Your task to perform on an android device: choose inbox layout in the gmail app Image 0: 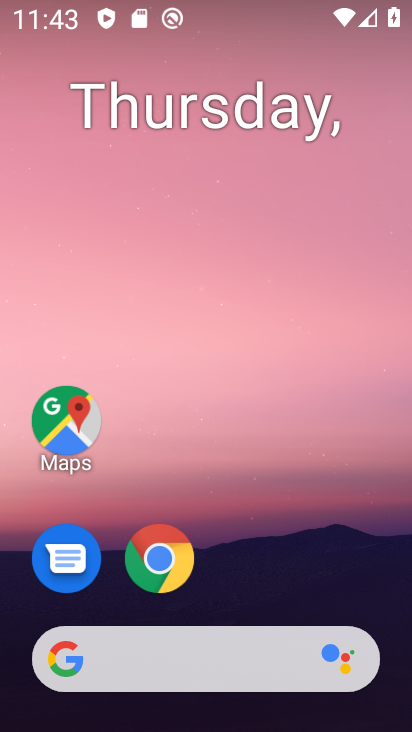
Step 0: drag from (376, 568) to (378, 180)
Your task to perform on an android device: choose inbox layout in the gmail app Image 1: 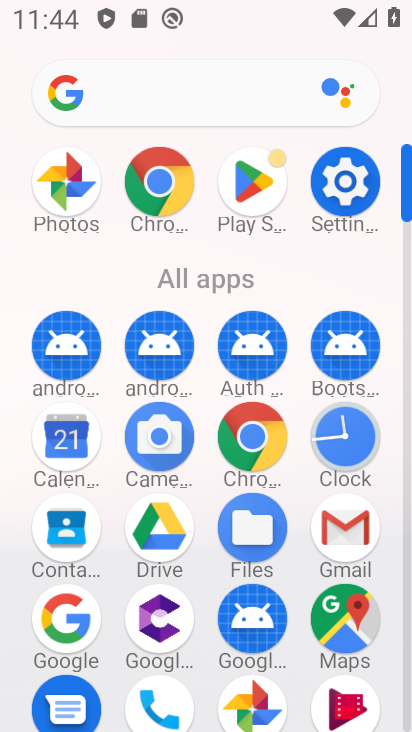
Step 1: click (341, 530)
Your task to perform on an android device: choose inbox layout in the gmail app Image 2: 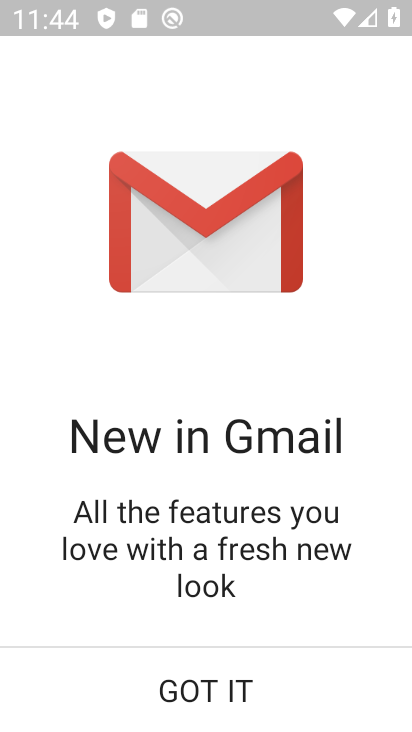
Step 2: click (229, 678)
Your task to perform on an android device: choose inbox layout in the gmail app Image 3: 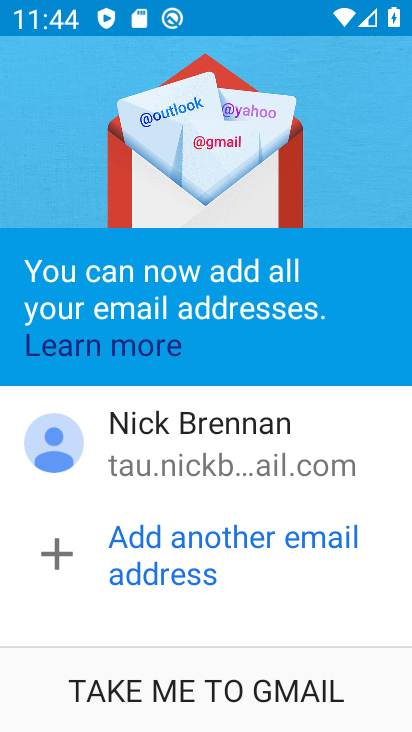
Step 3: click (229, 678)
Your task to perform on an android device: choose inbox layout in the gmail app Image 4: 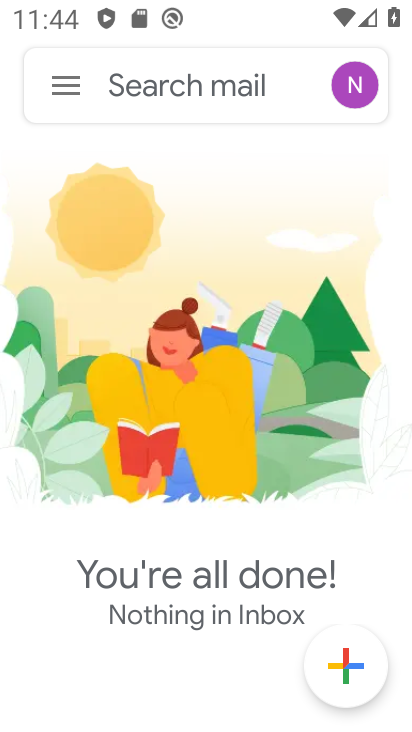
Step 4: click (66, 92)
Your task to perform on an android device: choose inbox layout in the gmail app Image 5: 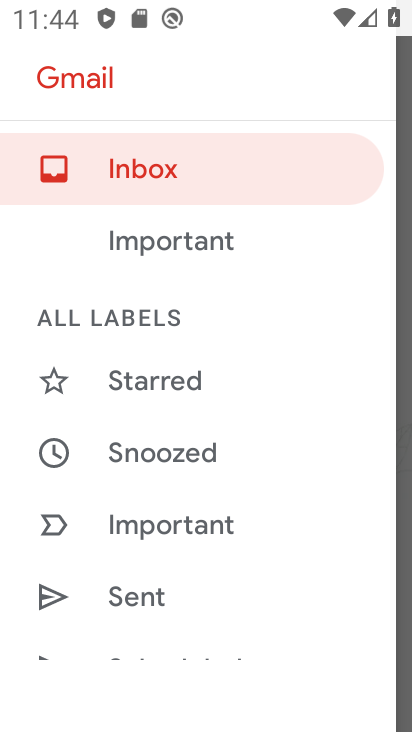
Step 5: drag from (269, 400) to (282, 348)
Your task to perform on an android device: choose inbox layout in the gmail app Image 6: 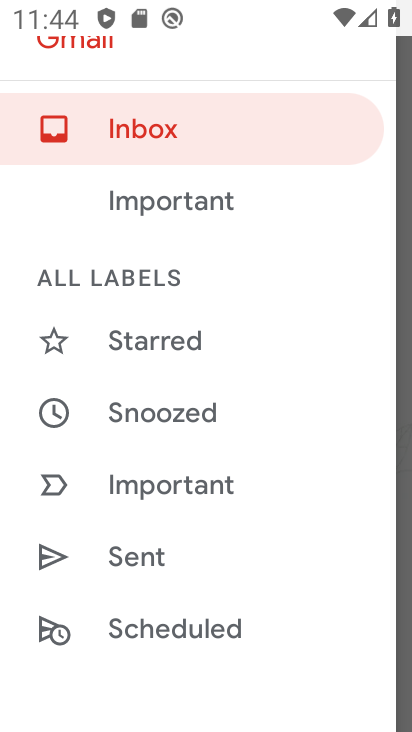
Step 6: drag from (290, 429) to (301, 361)
Your task to perform on an android device: choose inbox layout in the gmail app Image 7: 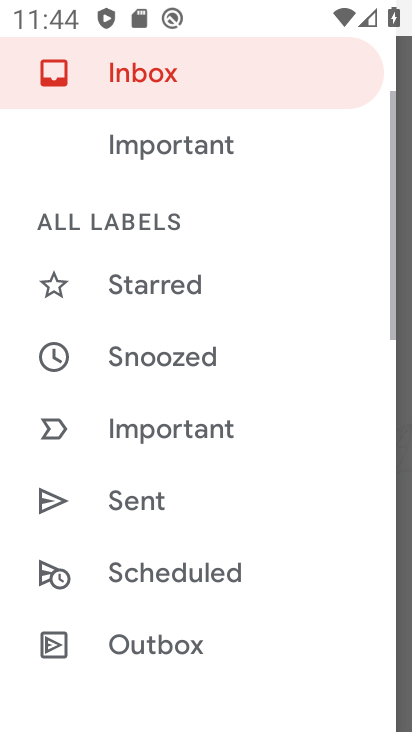
Step 7: drag from (306, 445) to (306, 369)
Your task to perform on an android device: choose inbox layout in the gmail app Image 8: 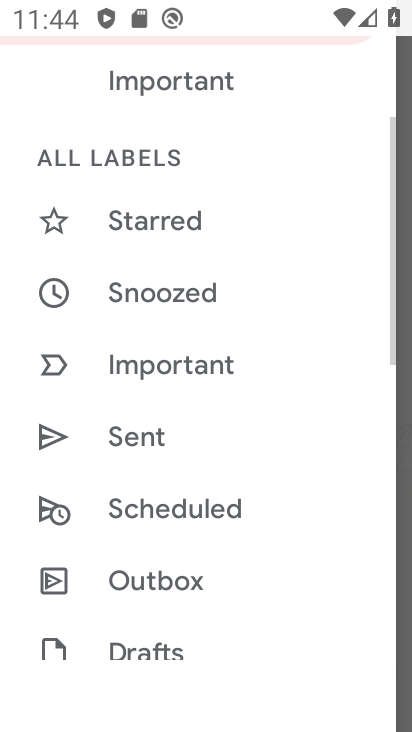
Step 8: drag from (291, 459) to (292, 386)
Your task to perform on an android device: choose inbox layout in the gmail app Image 9: 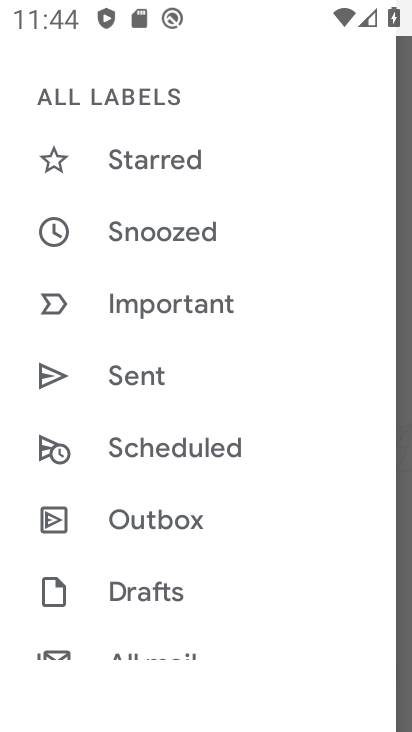
Step 9: drag from (291, 489) to (303, 412)
Your task to perform on an android device: choose inbox layout in the gmail app Image 10: 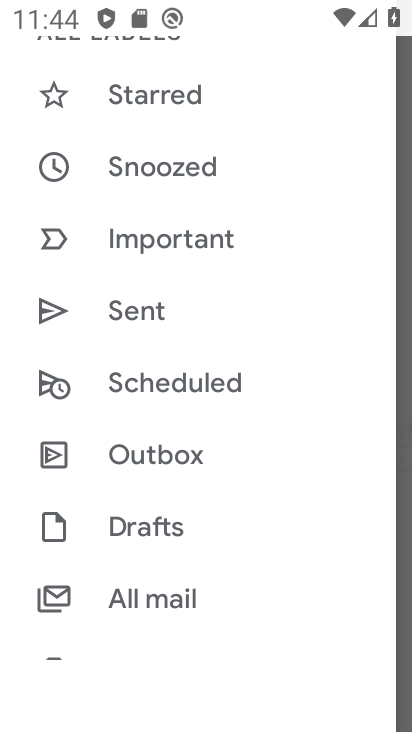
Step 10: drag from (286, 499) to (295, 435)
Your task to perform on an android device: choose inbox layout in the gmail app Image 11: 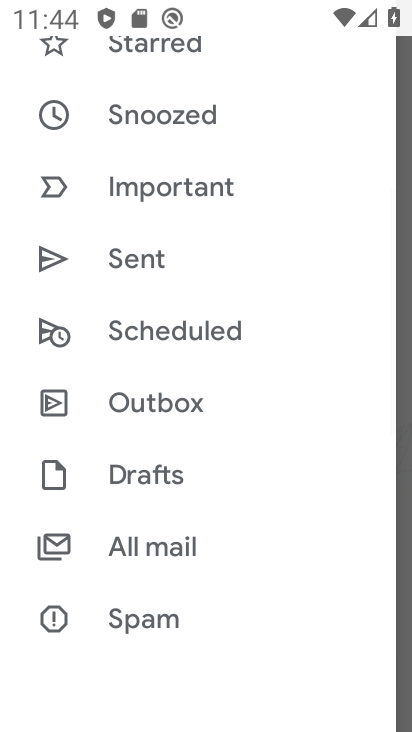
Step 11: drag from (284, 522) to (295, 436)
Your task to perform on an android device: choose inbox layout in the gmail app Image 12: 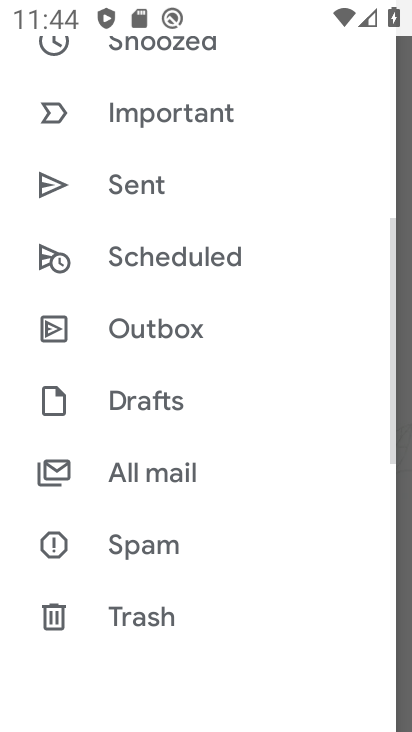
Step 12: drag from (302, 536) to (306, 452)
Your task to perform on an android device: choose inbox layout in the gmail app Image 13: 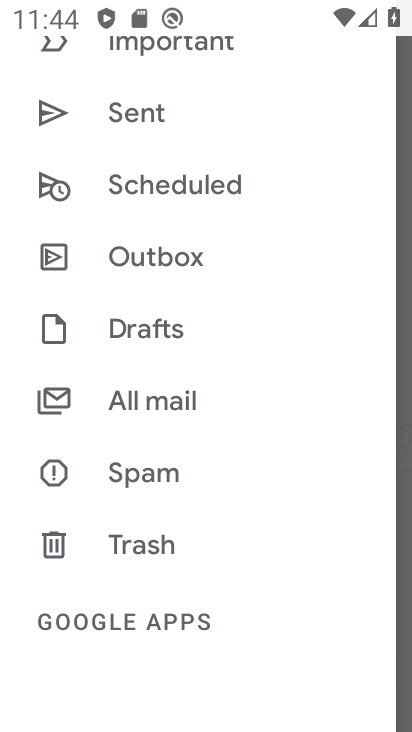
Step 13: drag from (287, 529) to (309, 392)
Your task to perform on an android device: choose inbox layout in the gmail app Image 14: 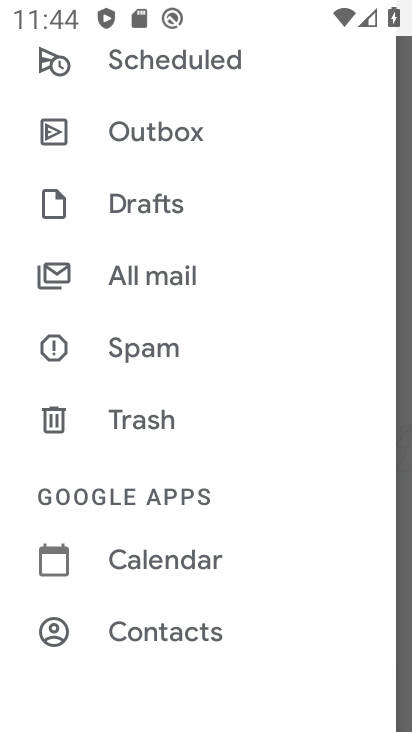
Step 14: drag from (294, 517) to (305, 405)
Your task to perform on an android device: choose inbox layout in the gmail app Image 15: 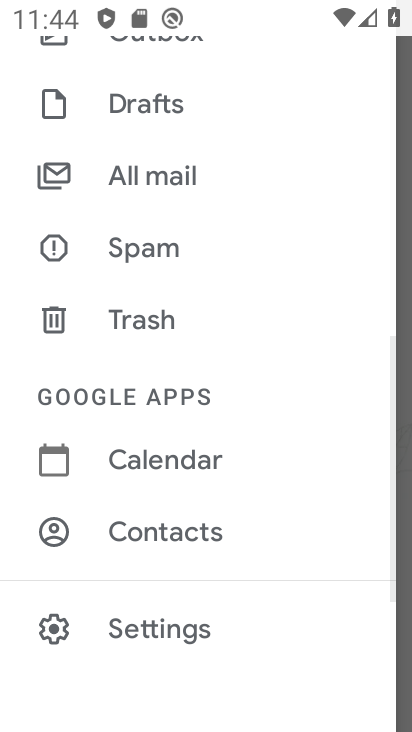
Step 15: drag from (307, 537) to (307, 450)
Your task to perform on an android device: choose inbox layout in the gmail app Image 16: 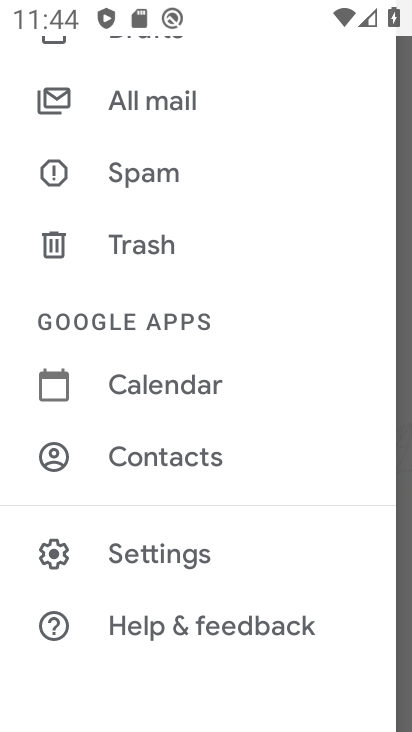
Step 16: click (257, 571)
Your task to perform on an android device: choose inbox layout in the gmail app Image 17: 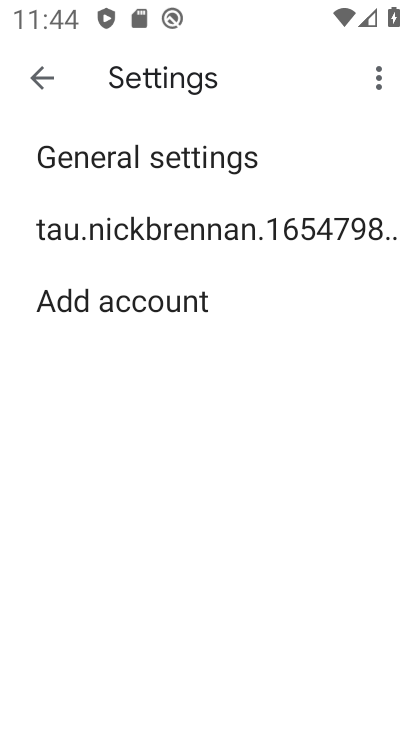
Step 17: click (297, 221)
Your task to perform on an android device: choose inbox layout in the gmail app Image 18: 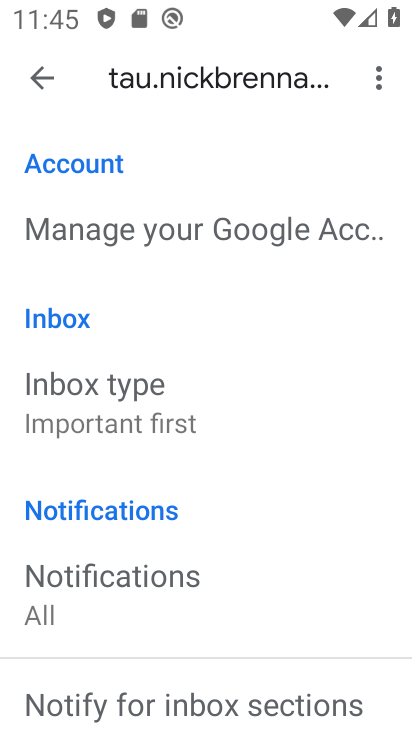
Step 18: click (193, 425)
Your task to perform on an android device: choose inbox layout in the gmail app Image 19: 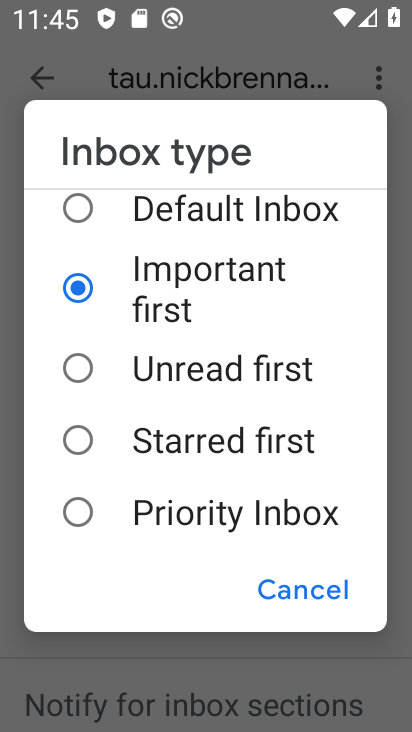
Step 19: click (207, 455)
Your task to perform on an android device: choose inbox layout in the gmail app Image 20: 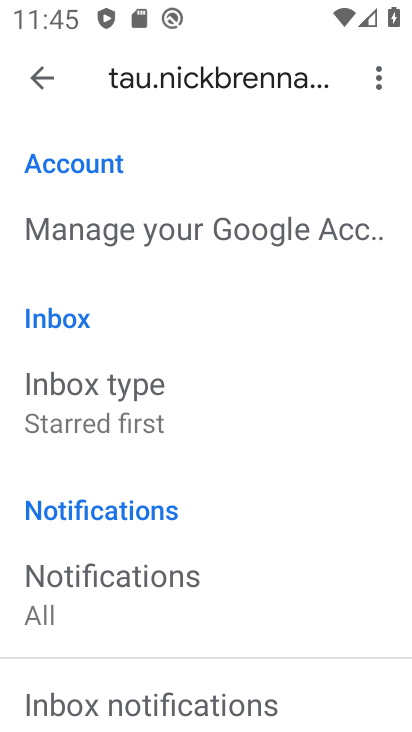
Step 20: task complete